Your task to perform on an android device: Open my contact list Image 0: 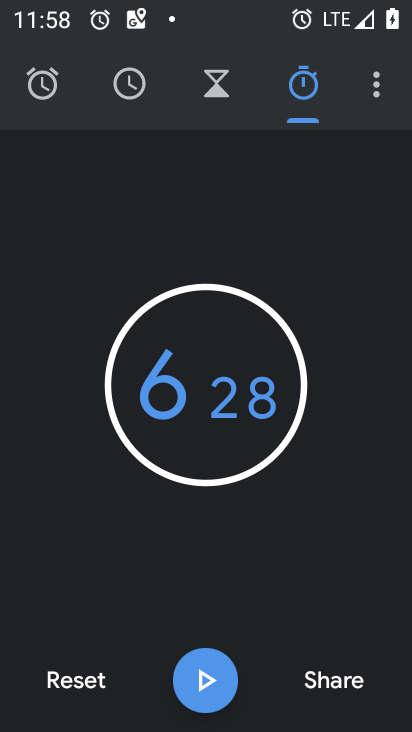
Step 0: press home button
Your task to perform on an android device: Open my contact list Image 1: 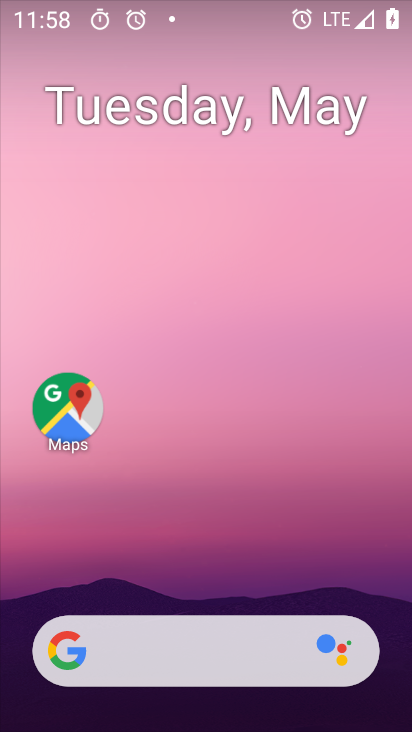
Step 1: drag from (226, 657) to (197, 187)
Your task to perform on an android device: Open my contact list Image 2: 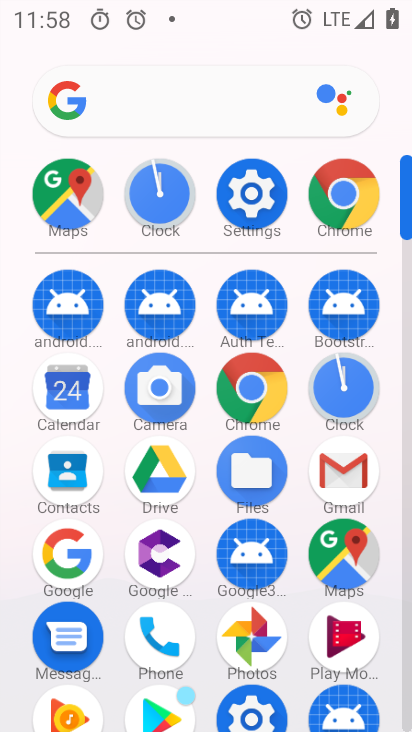
Step 2: click (66, 459)
Your task to perform on an android device: Open my contact list Image 3: 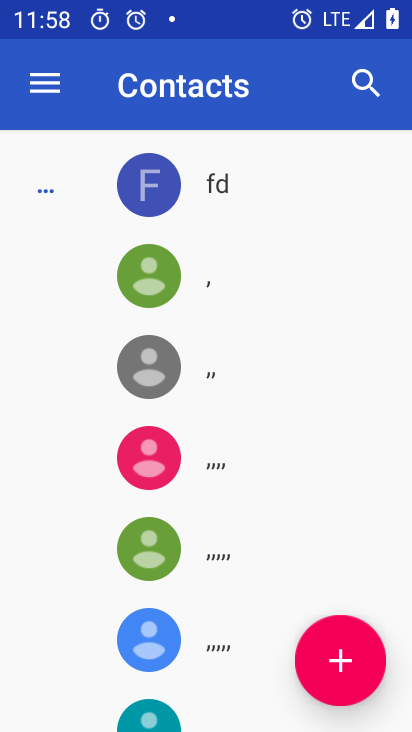
Step 3: task complete